Your task to perform on an android device: Play the last video I watched on Youtube Image 0: 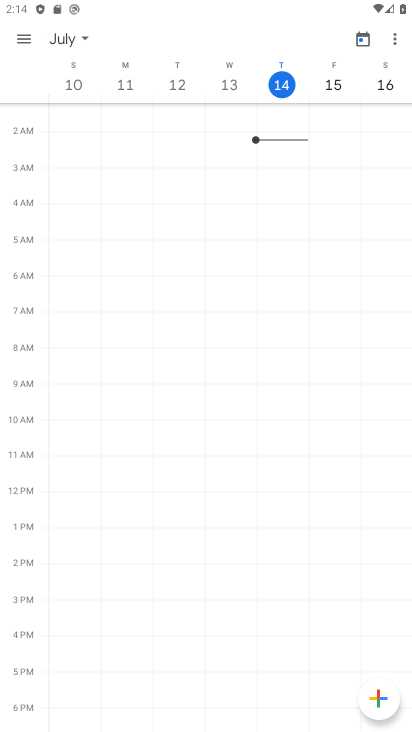
Step 0: press home button
Your task to perform on an android device: Play the last video I watched on Youtube Image 1: 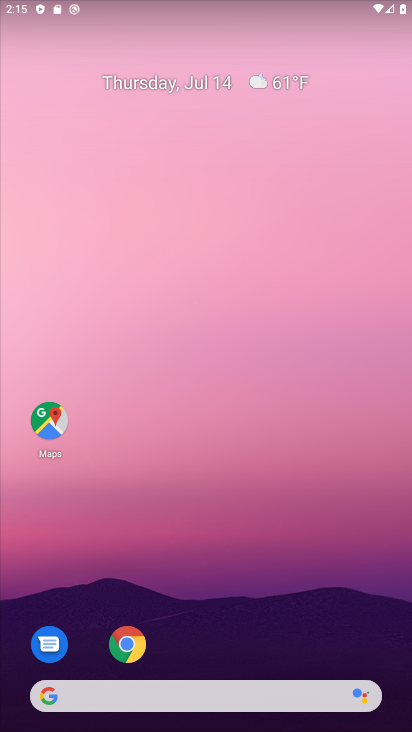
Step 1: drag from (178, 644) to (75, 0)
Your task to perform on an android device: Play the last video I watched on Youtube Image 2: 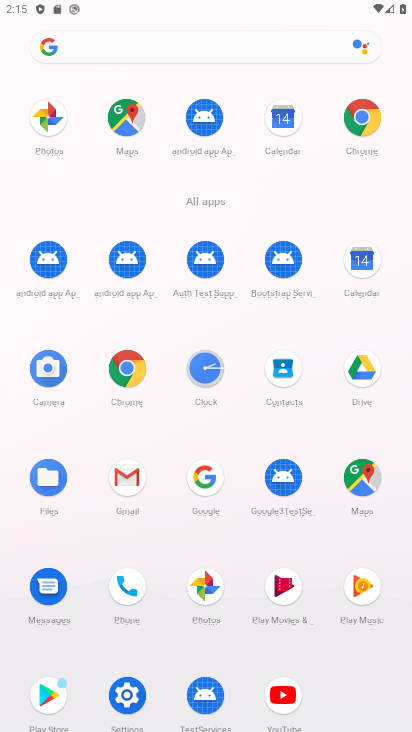
Step 2: click (277, 691)
Your task to perform on an android device: Play the last video I watched on Youtube Image 3: 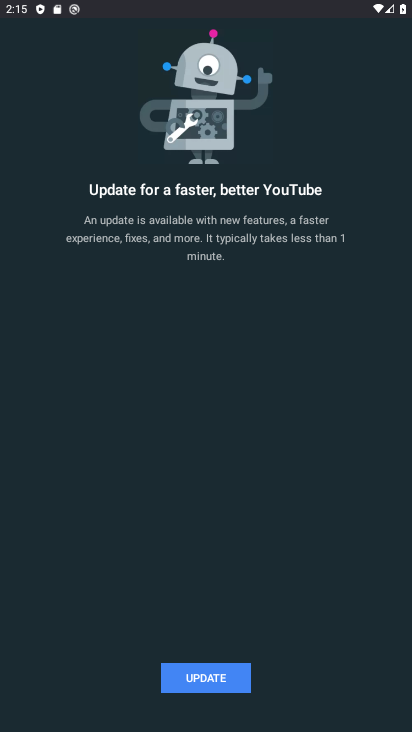
Step 3: task complete